Your task to perform on an android device: Open Android settings Image 0: 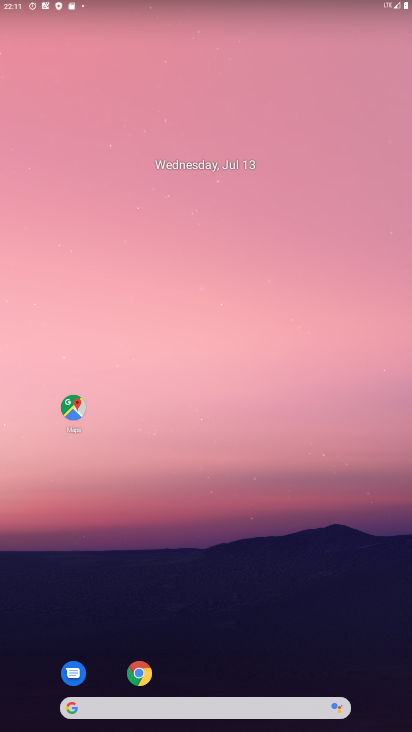
Step 0: drag from (179, 671) to (293, 115)
Your task to perform on an android device: Open Android settings Image 1: 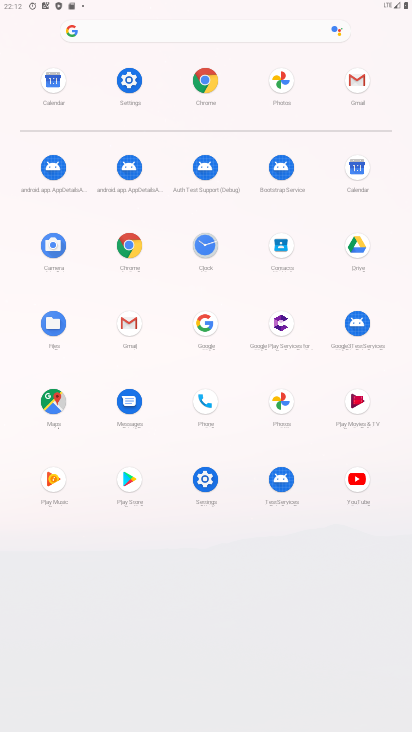
Step 1: click (199, 480)
Your task to perform on an android device: Open Android settings Image 2: 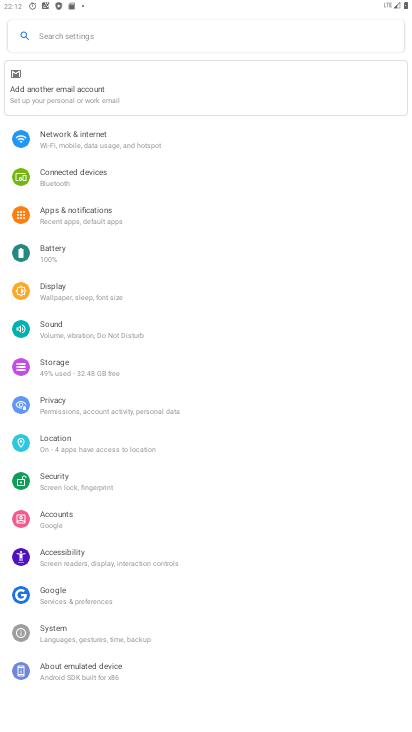
Step 2: click (81, 668)
Your task to perform on an android device: Open Android settings Image 3: 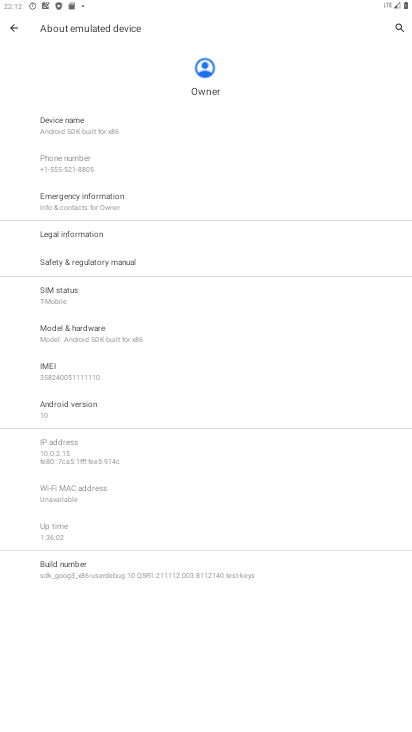
Step 3: click (138, 400)
Your task to perform on an android device: Open Android settings Image 4: 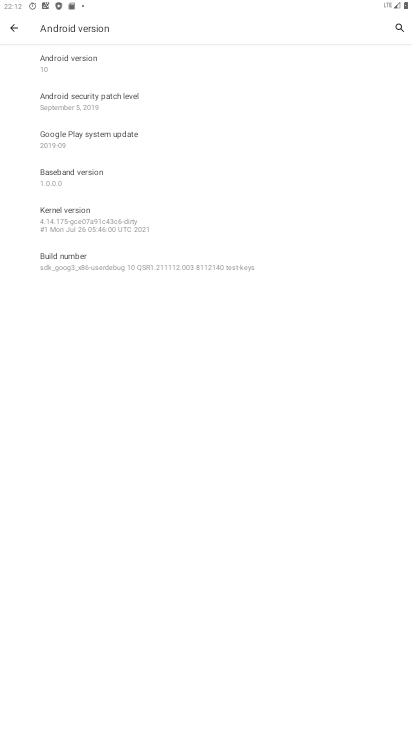
Step 4: task complete